Your task to perform on an android device: add a contact in the contacts app Image 0: 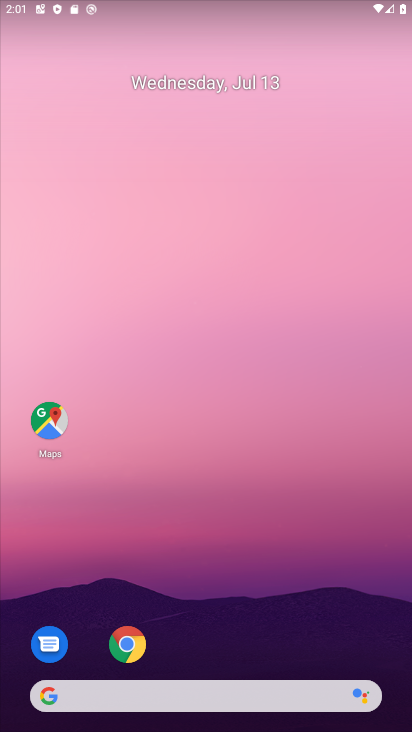
Step 0: drag from (332, 606) to (319, 105)
Your task to perform on an android device: add a contact in the contacts app Image 1: 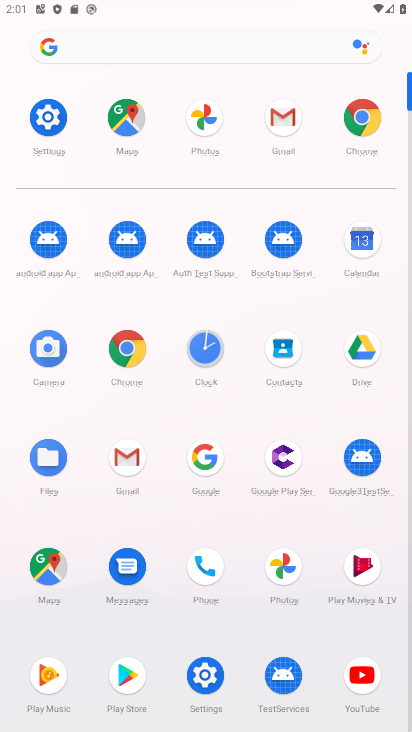
Step 1: click (292, 349)
Your task to perform on an android device: add a contact in the contacts app Image 2: 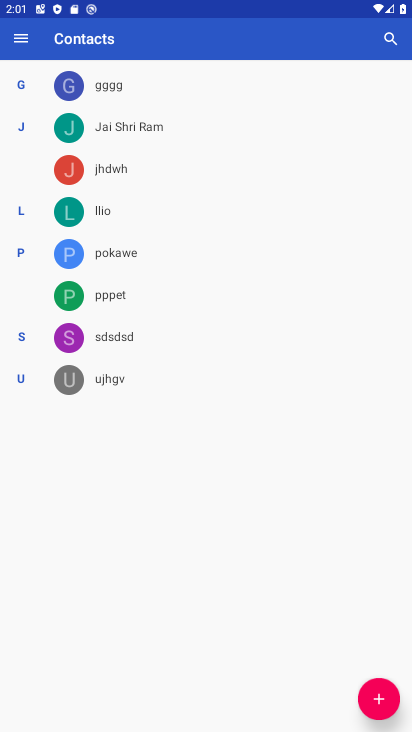
Step 2: click (380, 693)
Your task to perform on an android device: add a contact in the contacts app Image 3: 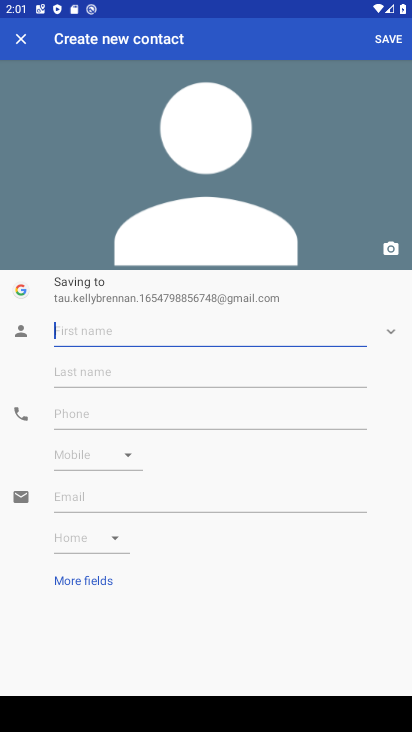
Step 3: type "porductuve"
Your task to perform on an android device: add a contact in the contacts app Image 4: 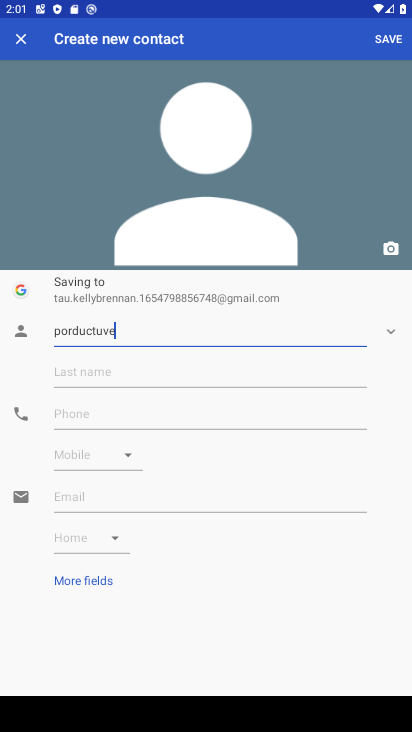
Step 4: click (384, 37)
Your task to perform on an android device: add a contact in the contacts app Image 5: 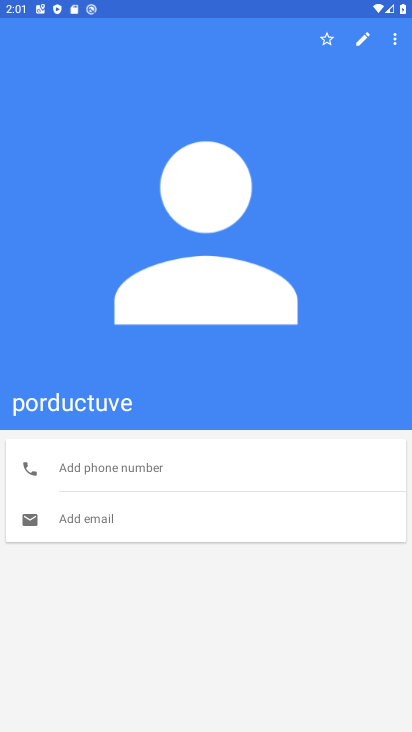
Step 5: task complete